Your task to perform on an android device: turn on translation in the chrome app Image 0: 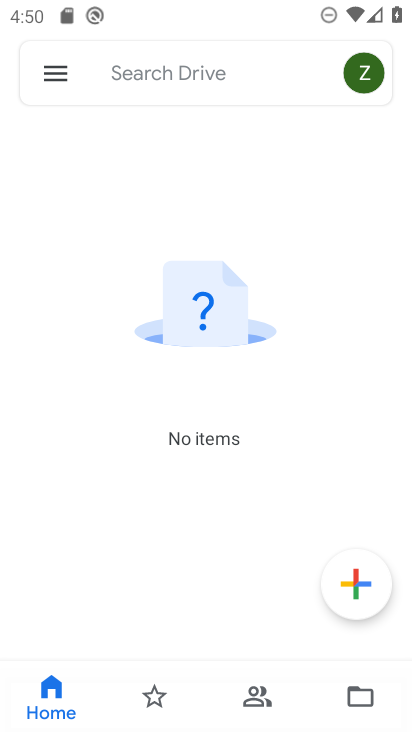
Step 0: press home button
Your task to perform on an android device: turn on translation in the chrome app Image 1: 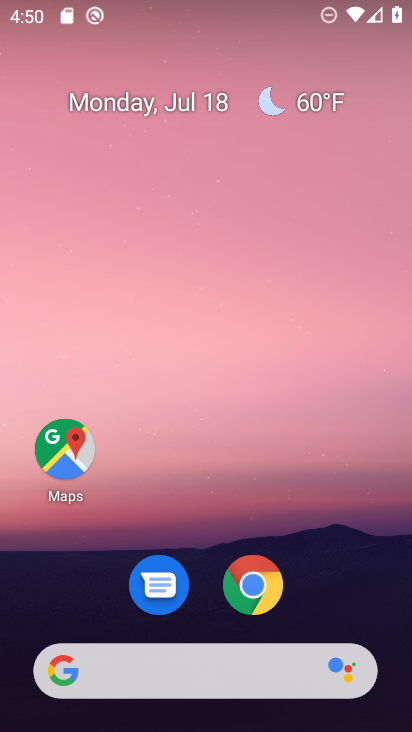
Step 1: click (271, 573)
Your task to perform on an android device: turn on translation in the chrome app Image 2: 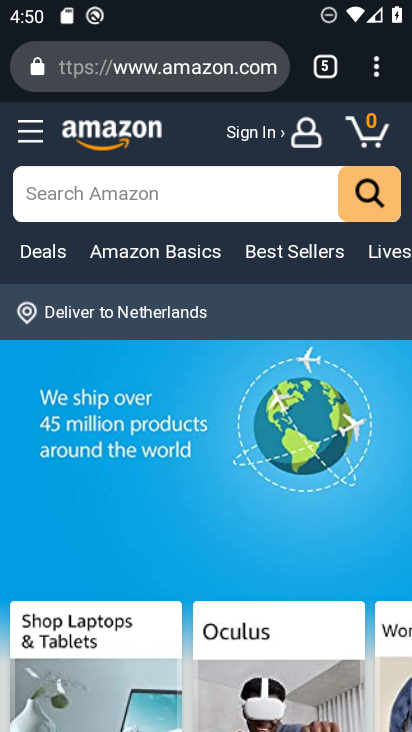
Step 2: click (376, 67)
Your task to perform on an android device: turn on translation in the chrome app Image 3: 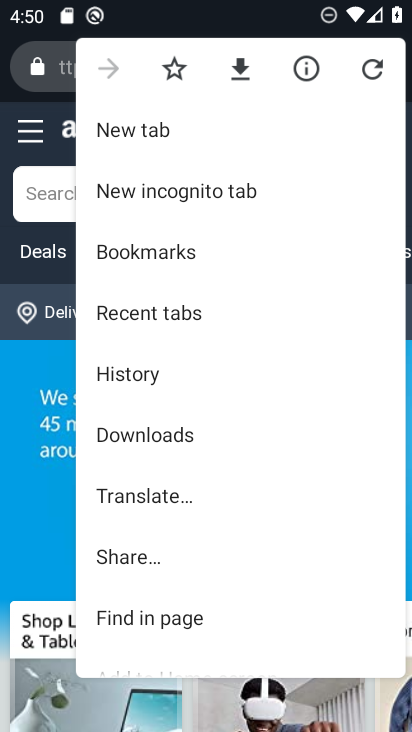
Step 3: drag from (254, 577) to (339, 174)
Your task to perform on an android device: turn on translation in the chrome app Image 4: 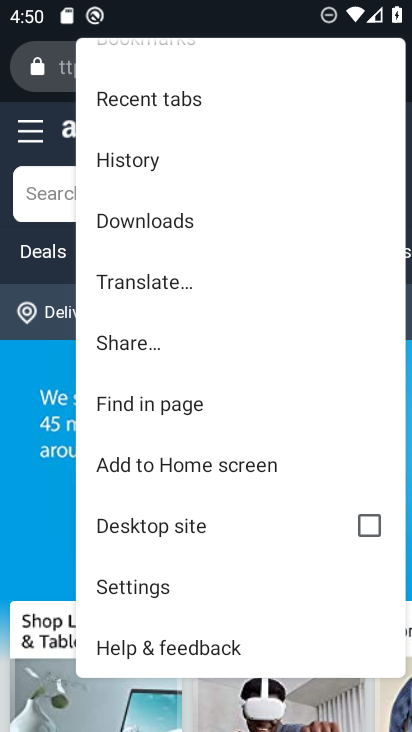
Step 4: click (153, 580)
Your task to perform on an android device: turn on translation in the chrome app Image 5: 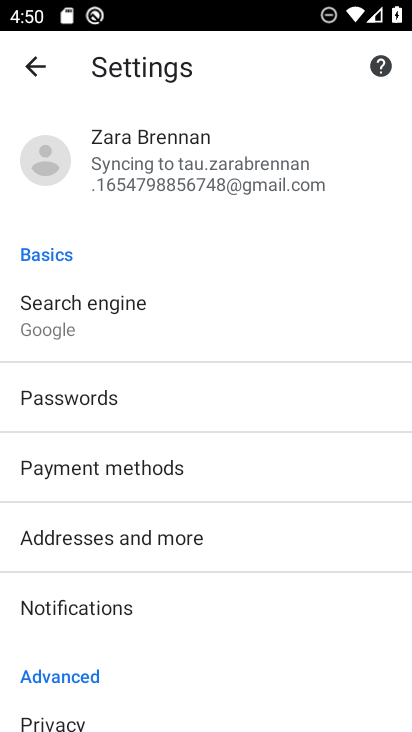
Step 5: drag from (246, 548) to (297, 138)
Your task to perform on an android device: turn on translation in the chrome app Image 6: 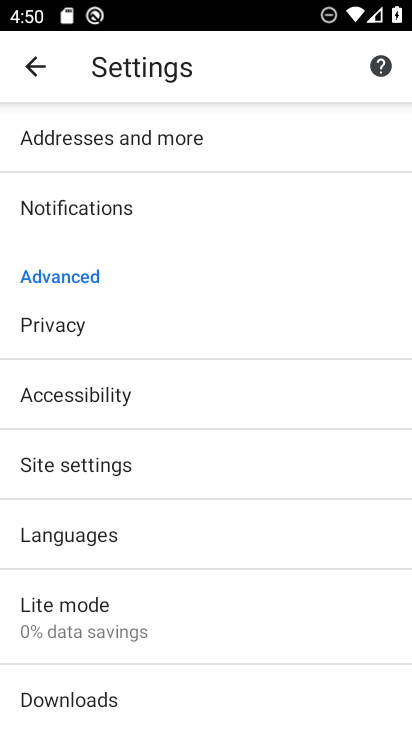
Step 6: click (230, 536)
Your task to perform on an android device: turn on translation in the chrome app Image 7: 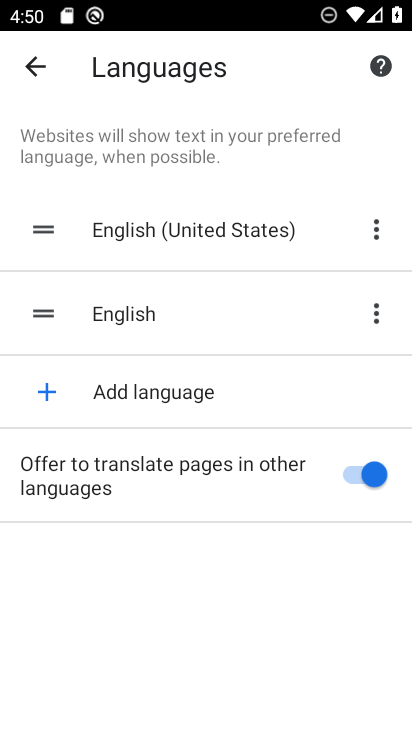
Step 7: task complete